Your task to perform on an android device: make emails show in primary in the gmail app Image 0: 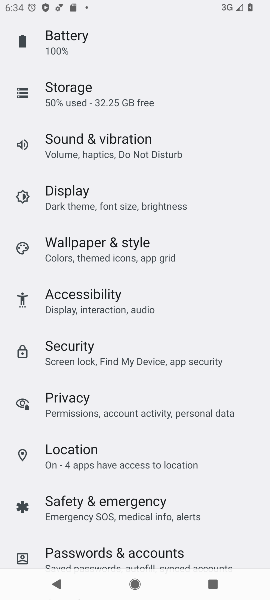
Step 0: press home button
Your task to perform on an android device: make emails show in primary in the gmail app Image 1: 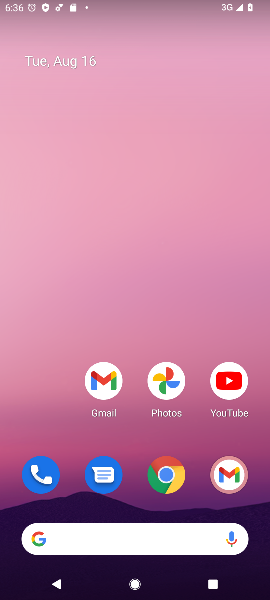
Step 1: drag from (210, 507) to (178, 23)
Your task to perform on an android device: make emails show in primary in the gmail app Image 2: 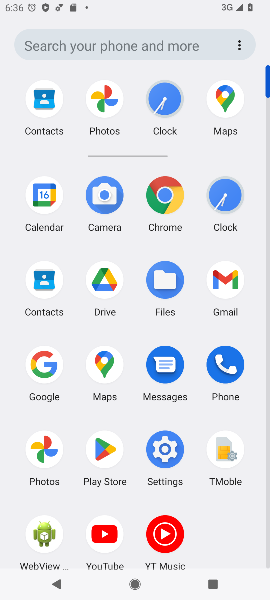
Step 2: click (235, 275)
Your task to perform on an android device: make emails show in primary in the gmail app Image 3: 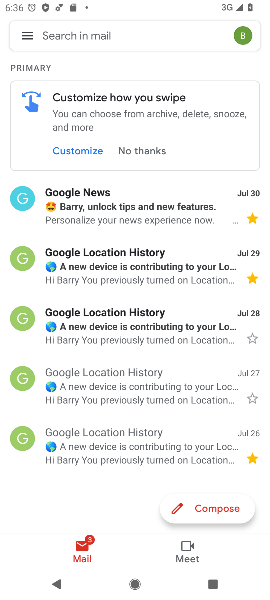
Step 3: task complete